Your task to perform on an android device: Go to Yahoo.com Image 0: 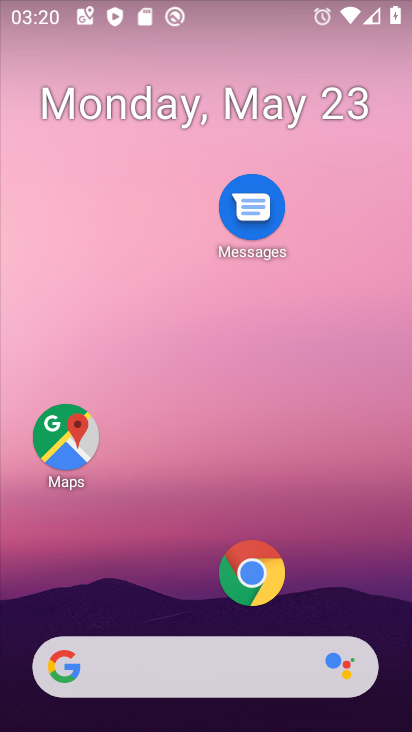
Step 0: drag from (273, 632) to (410, 480)
Your task to perform on an android device: Go to Yahoo.com Image 1: 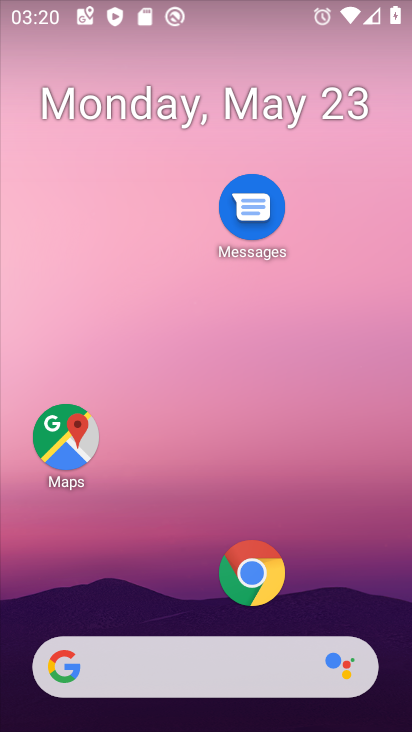
Step 1: click (267, 382)
Your task to perform on an android device: Go to Yahoo.com Image 2: 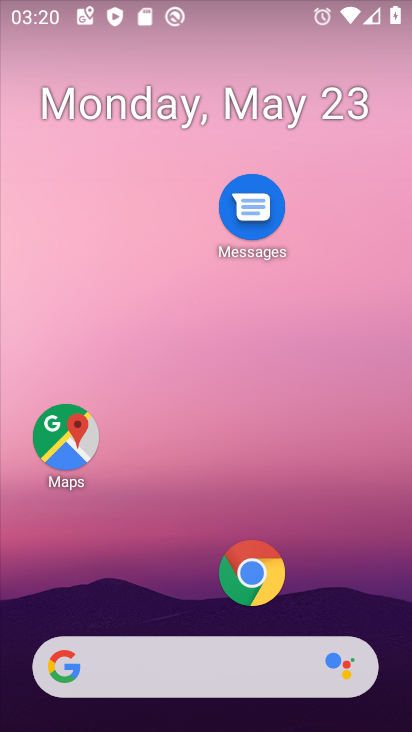
Step 2: drag from (291, 586) to (338, 55)
Your task to perform on an android device: Go to Yahoo.com Image 3: 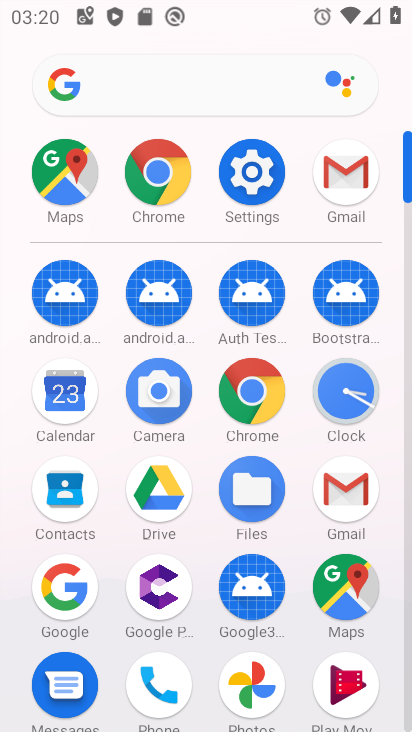
Step 3: click (269, 391)
Your task to perform on an android device: Go to Yahoo.com Image 4: 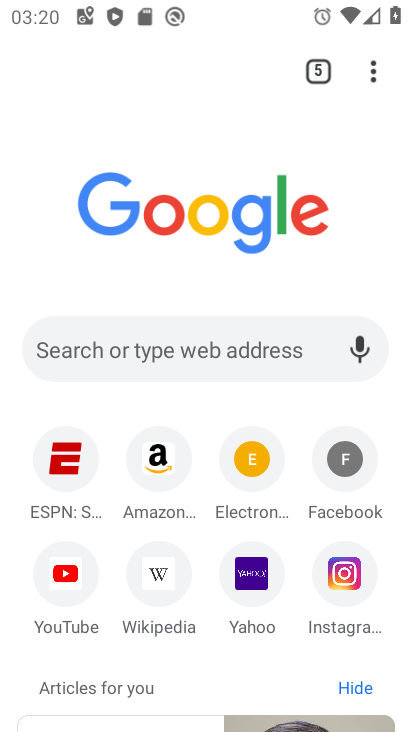
Step 4: click (240, 580)
Your task to perform on an android device: Go to Yahoo.com Image 5: 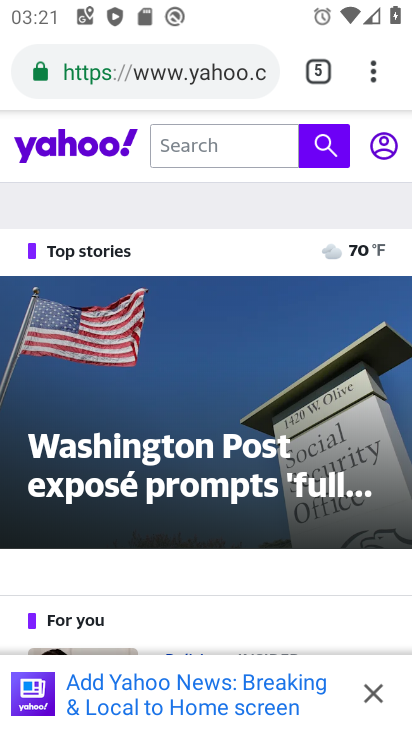
Step 5: task complete